Your task to perform on an android device: Is it going to rain today? Image 0: 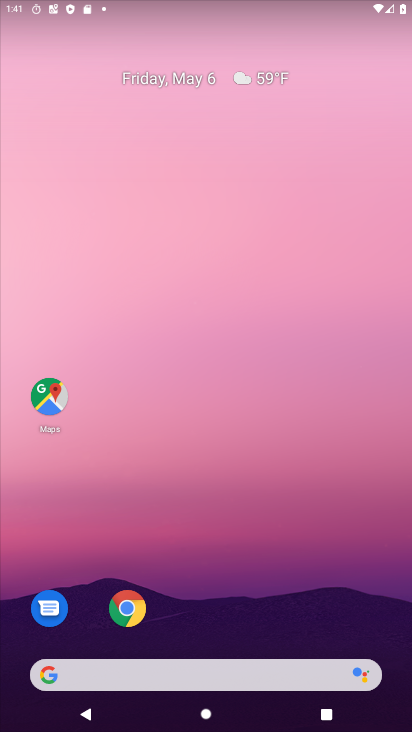
Step 0: click (122, 597)
Your task to perform on an android device: Is it going to rain today? Image 1: 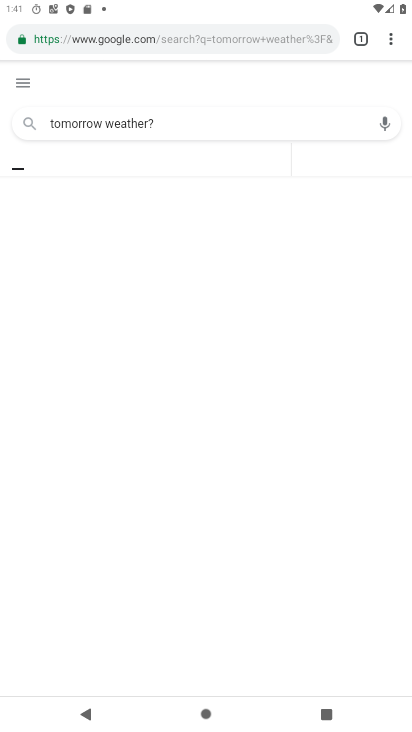
Step 1: click (77, 44)
Your task to perform on an android device: Is it going to rain today? Image 2: 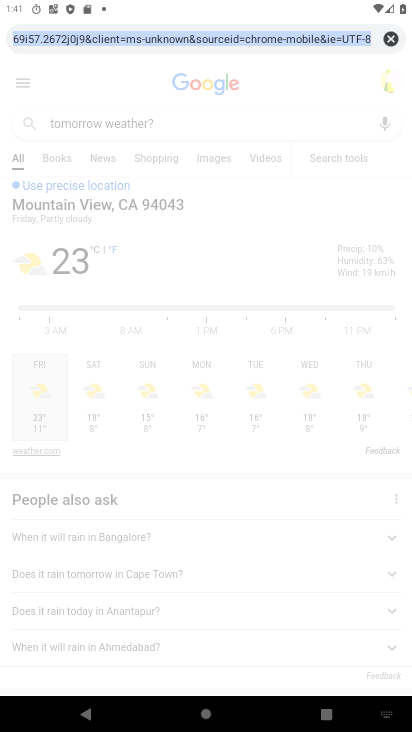
Step 2: type "is it going to rain today?"
Your task to perform on an android device: Is it going to rain today? Image 3: 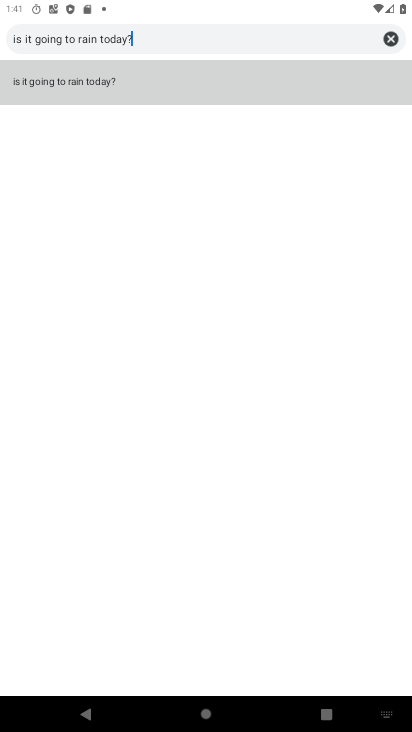
Step 3: click (131, 93)
Your task to perform on an android device: Is it going to rain today? Image 4: 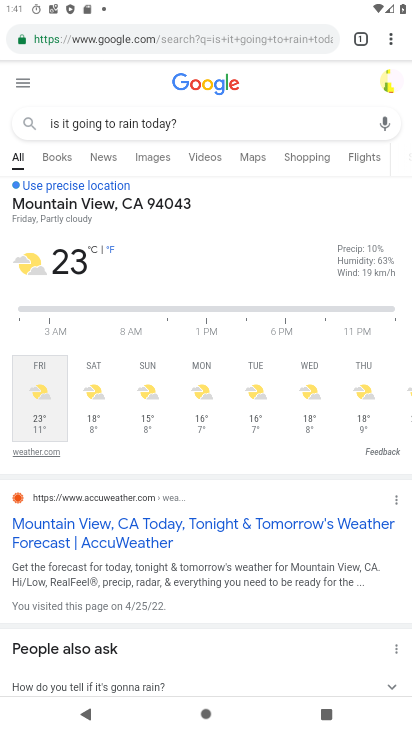
Step 4: task complete